Your task to perform on an android device: set default search engine in the chrome app Image 0: 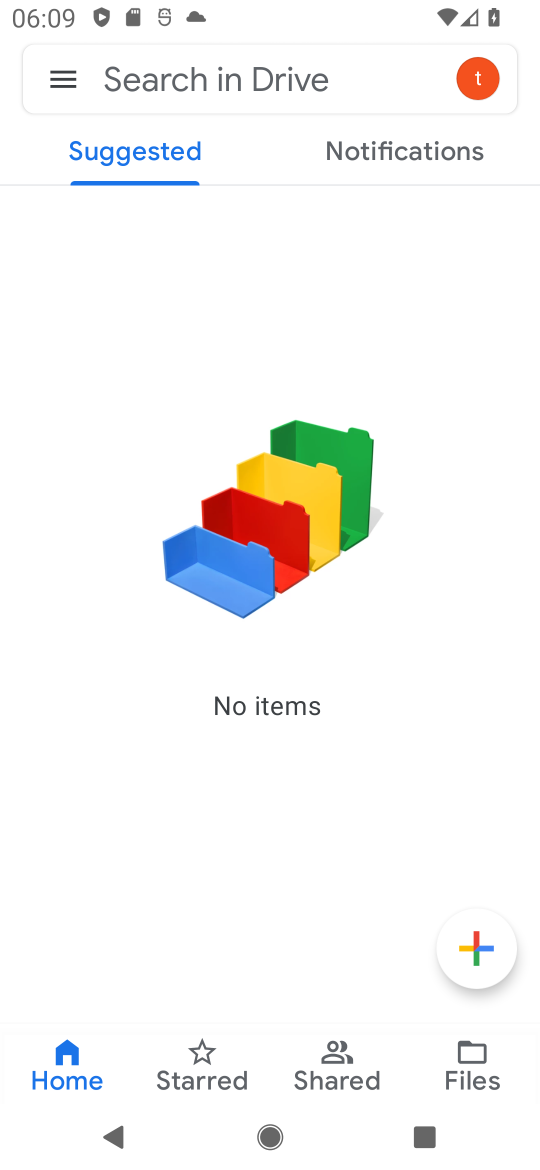
Step 0: press home button
Your task to perform on an android device: set default search engine in the chrome app Image 1: 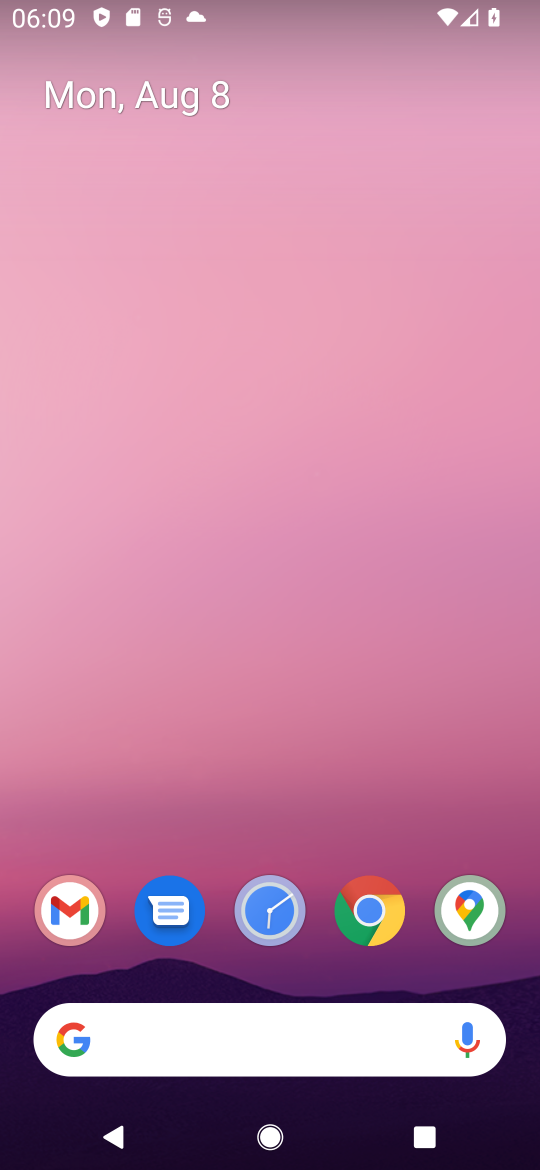
Step 1: click (368, 913)
Your task to perform on an android device: set default search engine in the chrome app Image 2: 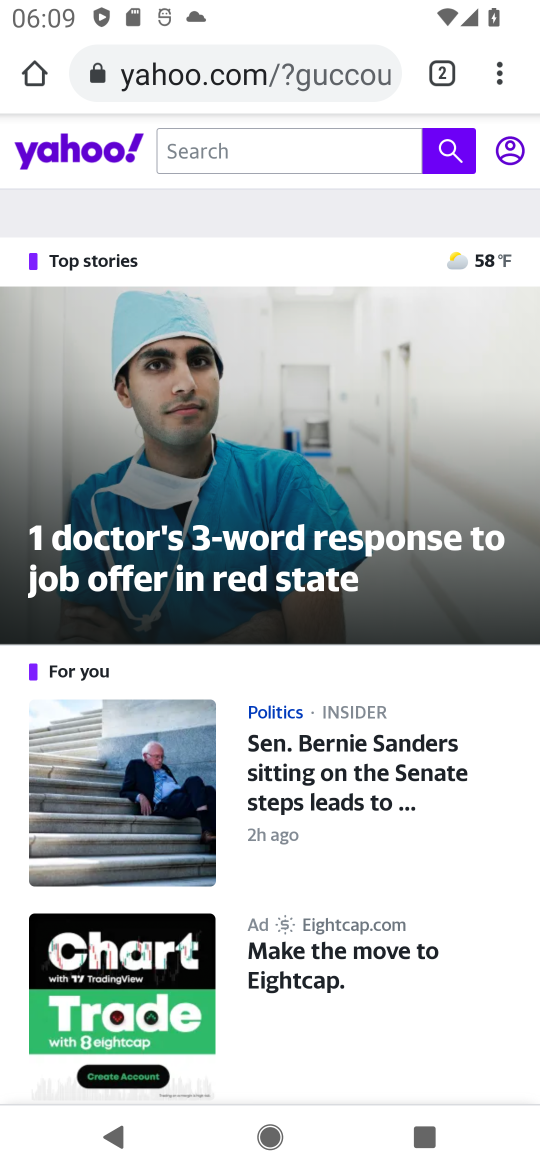
Step 2: click (499, 72)
Your task to perform on an android device: set default search engine in the chrome app Image 3: 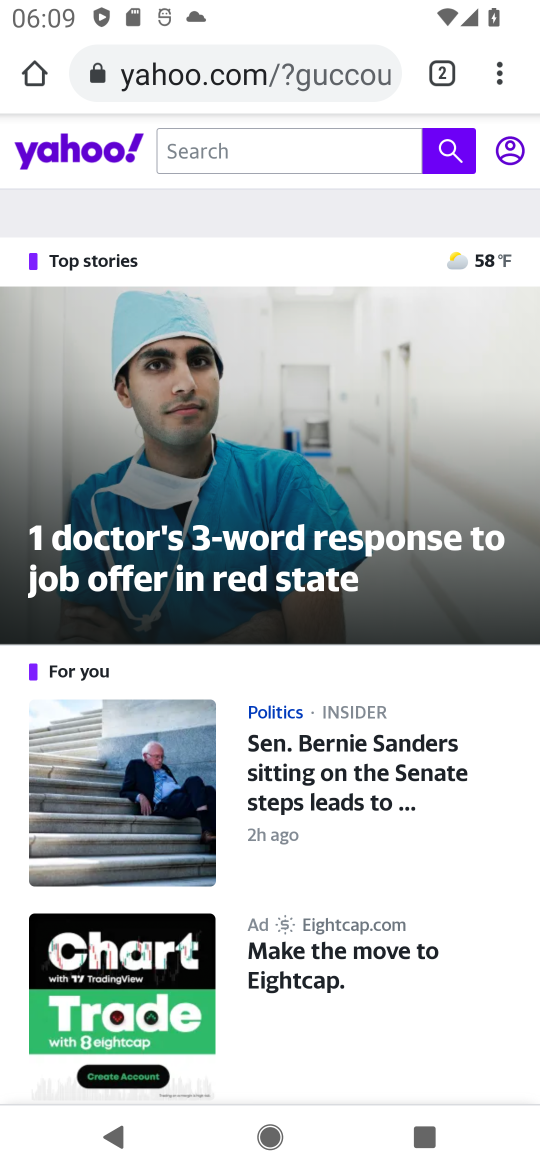
Step 3: click (499, 72)
Your task to perform on an android device: set default search engine in the chrome app Image 4: 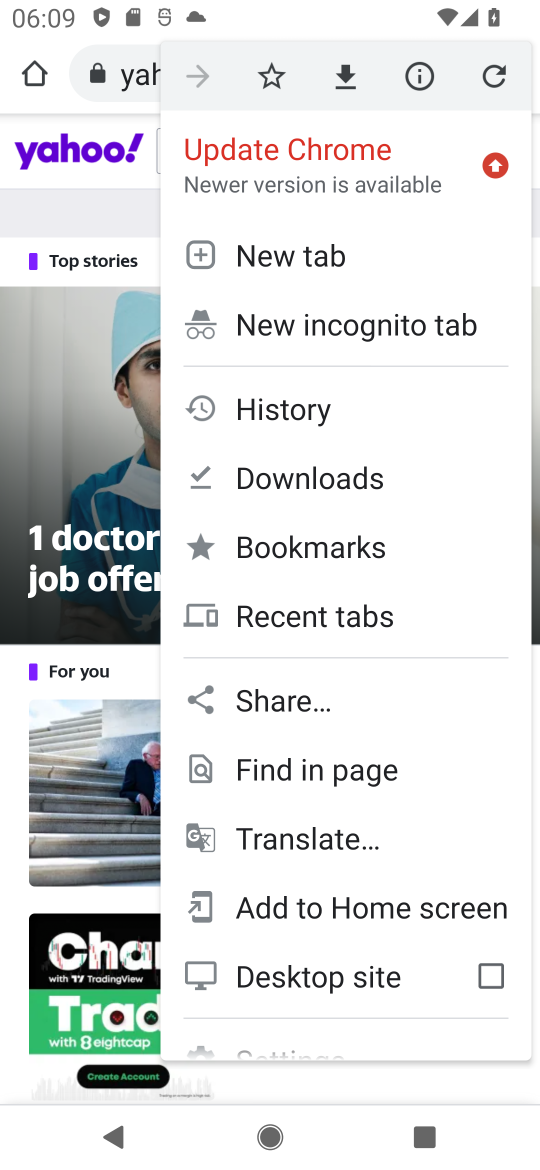
Step 4: drag from (292, 862) to (334, 655)
Your task to perform on an android device: set default search engine in the chrome app Image 5: 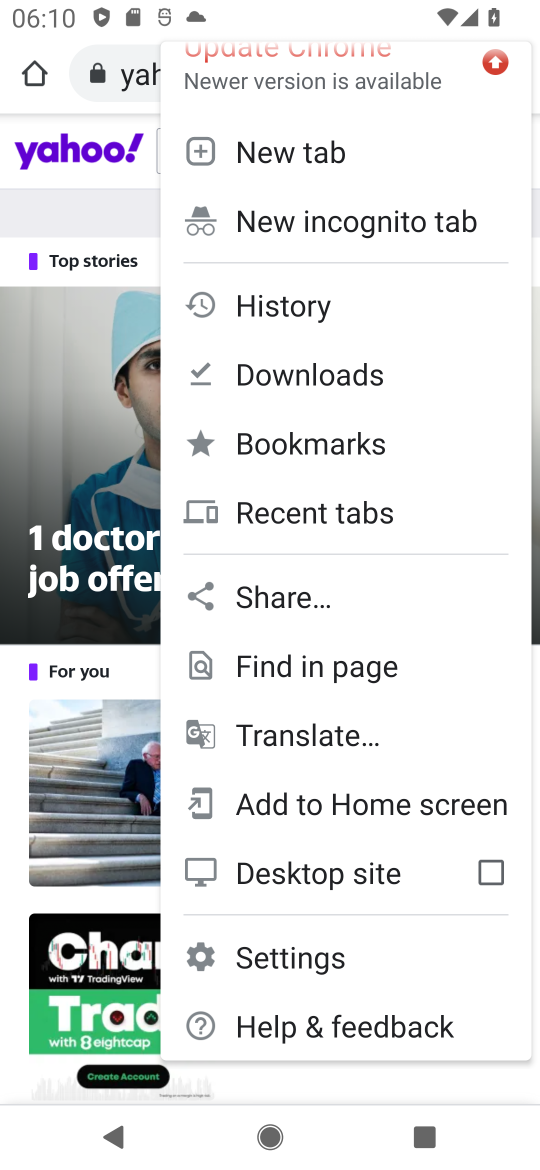
Step 5: click (297, 959)
Your task to perform on an android device: set default search engine in the chrome app Image 6: 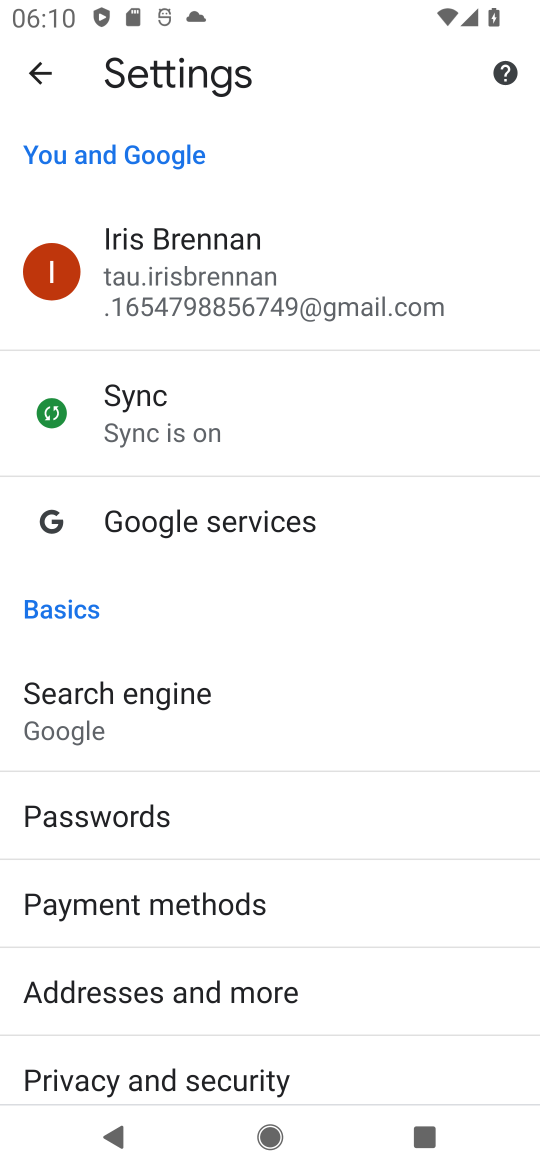
Step 6: click (101, 704)
Your task to perform on an android device: set default search engine in the chrome app Image 7: 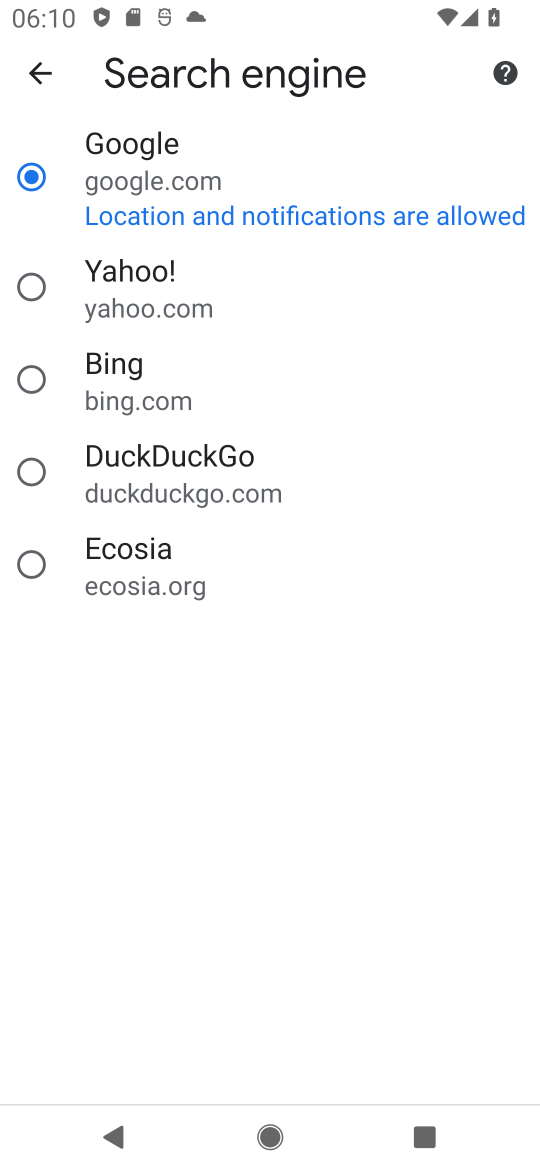
Step 7: click (26, 165)
Your task to perform on an android device: set default search engine in the chrome app Image 8: 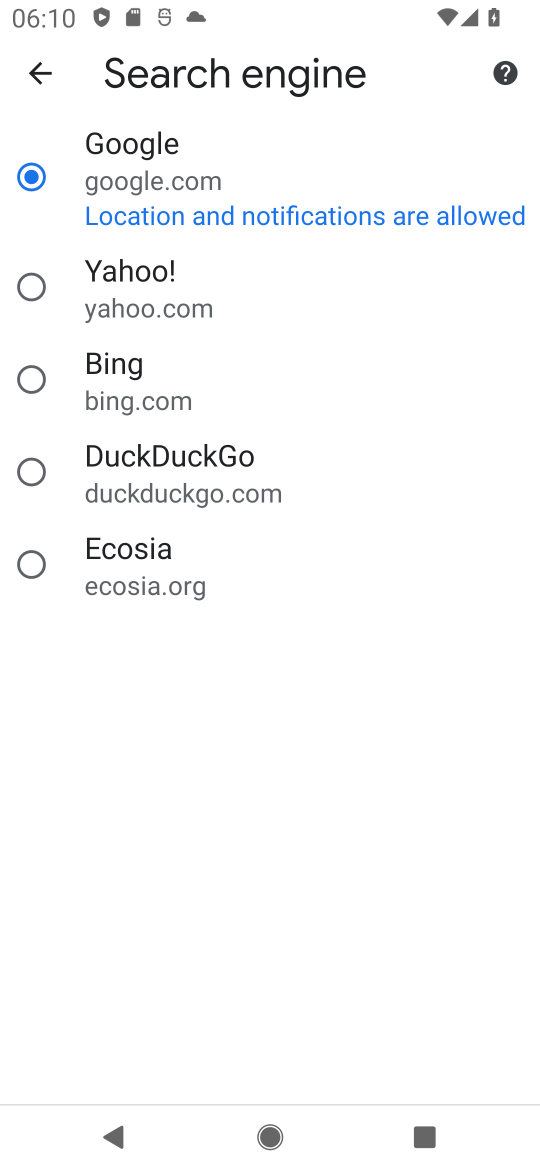
Step 8: task complete